Your task to perform on an android device: Open Android settings Image 0: 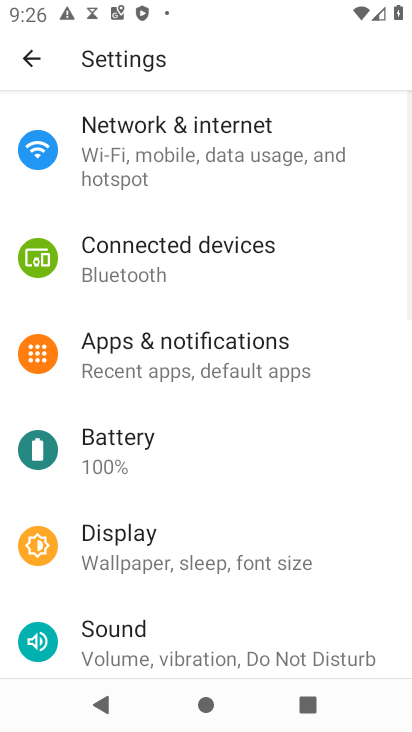
Step 0: press home button
Your task to perform on an android device: Open Android settings Image 1: 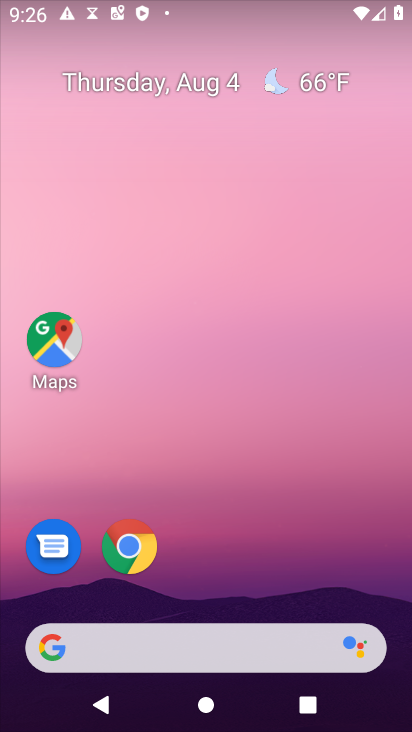
Step 1: drag from (263, 609) to (296, 16)
Your task to perform on an android device: Open Android settings Image 2: 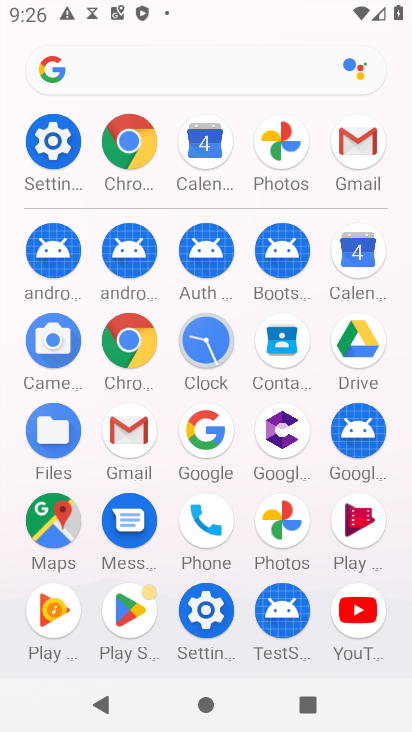
Step 2: click (46, 137)
Your task to perform on an android device: Open Android settings Image 3: 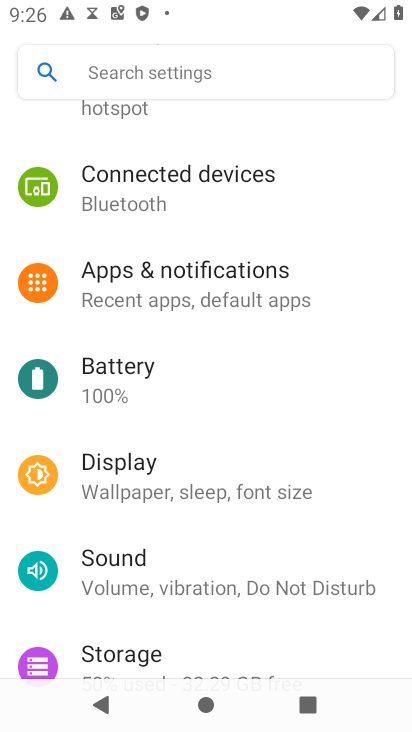
Step 3: task complete